Your task to perform on an android device: Go to ESPN.com Image 0: 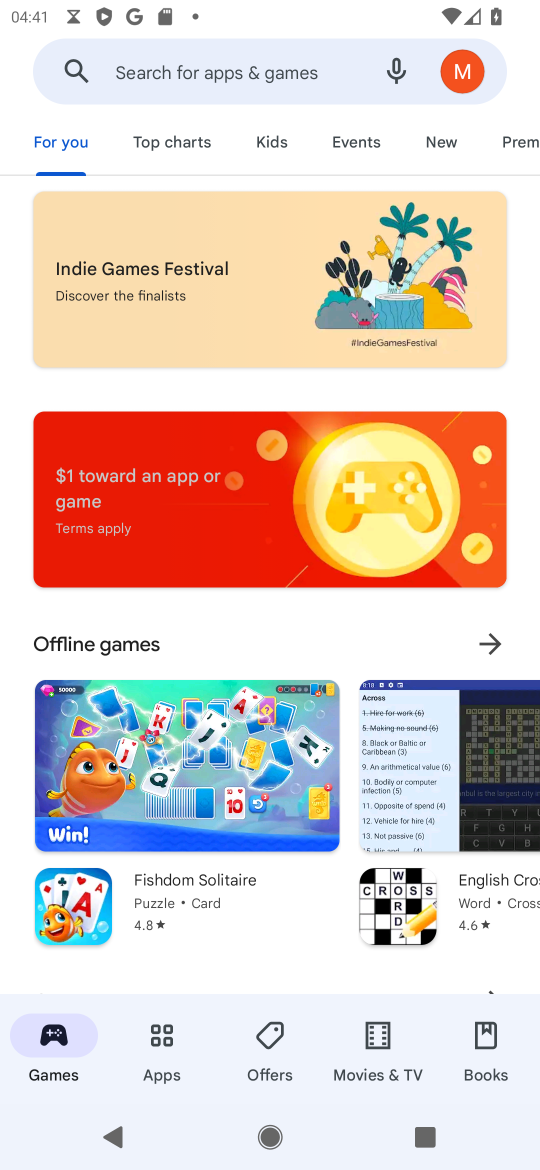
Step 0: press home button
Your task to perform on an android device: Go to ESPN.com Image 1: 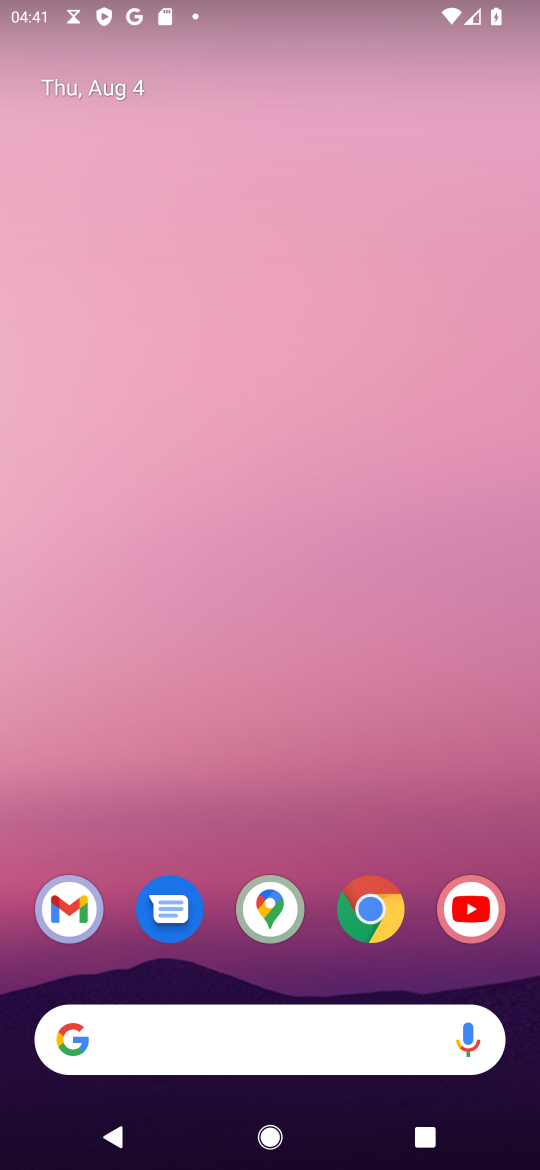
Step 1: drag from (198, 1037) to (394, 304)
Your task to perform on an android device: Go to ESPN.com Image 2: 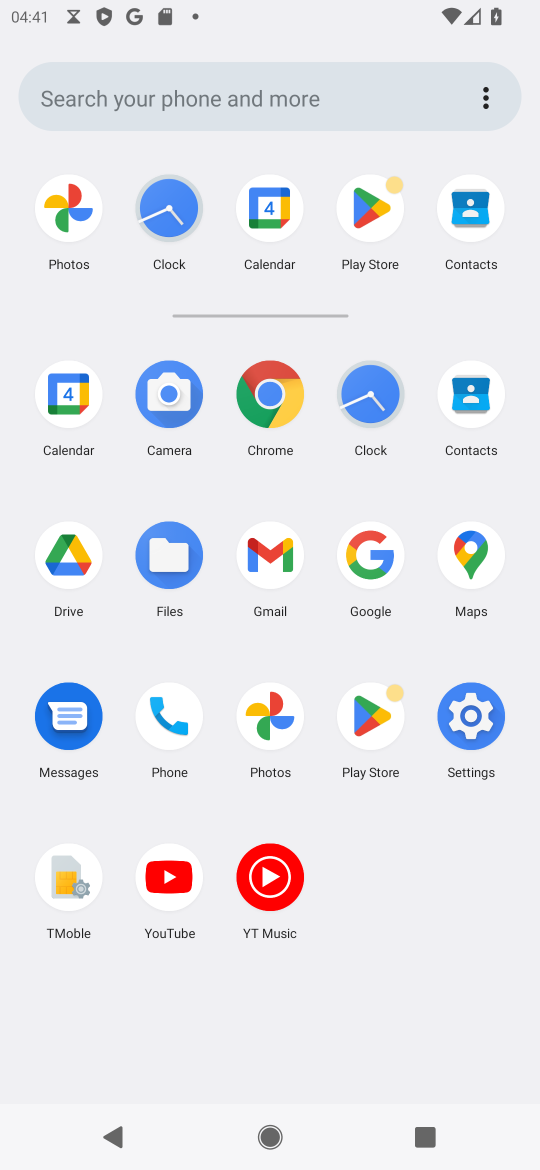
Step 2: click (277, 395)
Your task to perform on an android device: Go to ESPN.com Image 3: 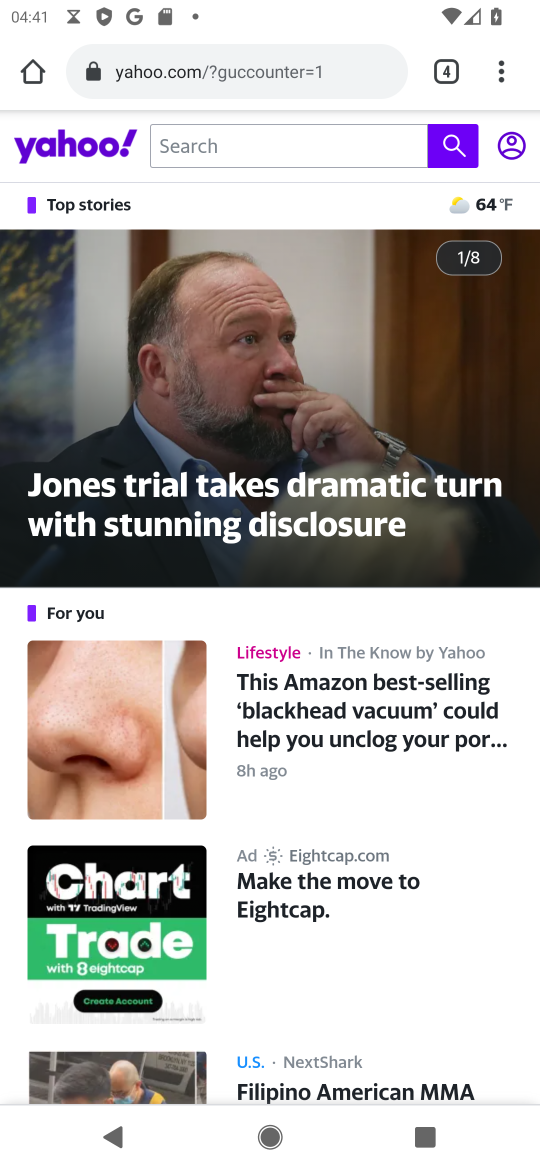
Step 3: drag from (503, 74) to (341, 227)
Your task to perform on an android device: Go to ESPN.com Image 4: 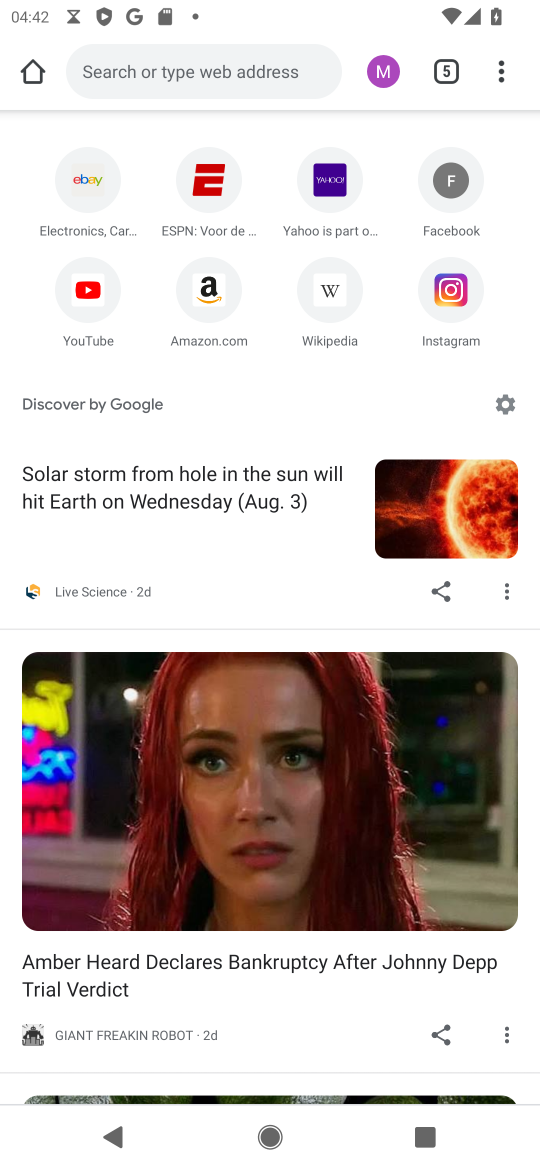
Step 4: click (224, 188)
Your task to perform on an android device: Go to ESPN.com Image 5: 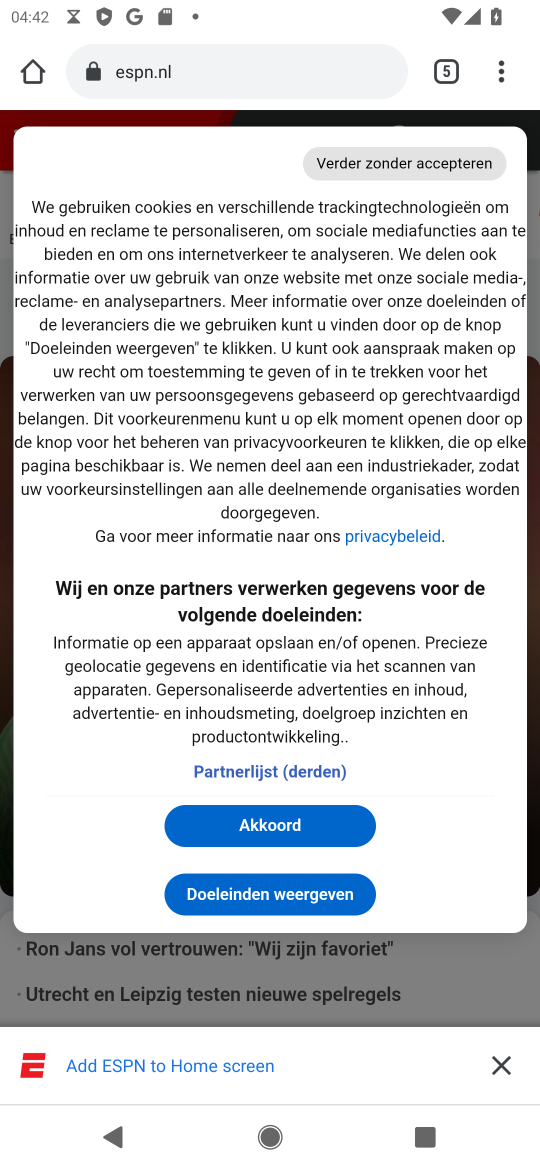
Step 5: task complete